Your task to perform on an android device: Open maps Image 0: 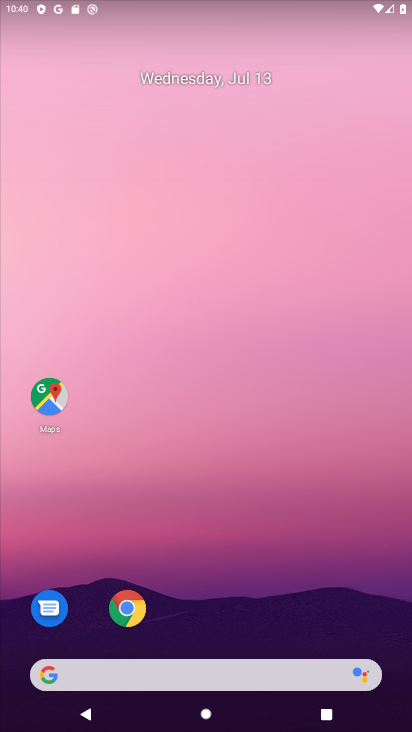
Step 0: click (53, 409)
Your task to perform on an android device: Open maps Image 1: 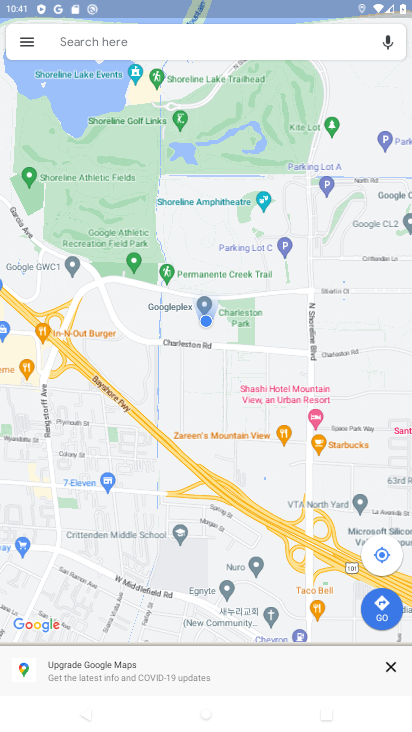
Step 1: task complete